Your task to perform on an android device: all mails in gmail Image 0: 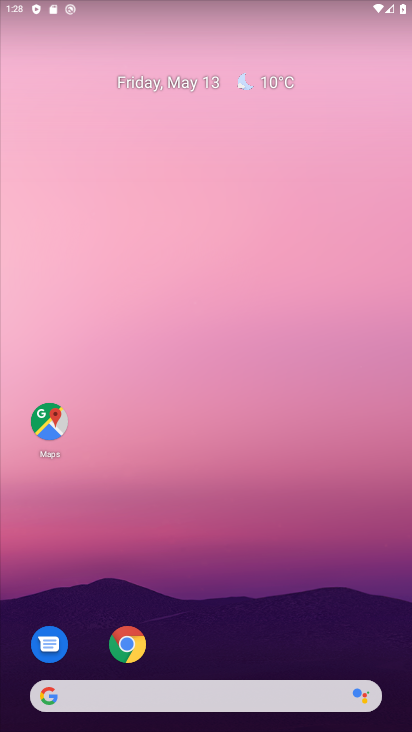
Step 0: drag from (229, 677) to (337, 1)
Your task to perform on an android device: all mails in gmail Image 1: 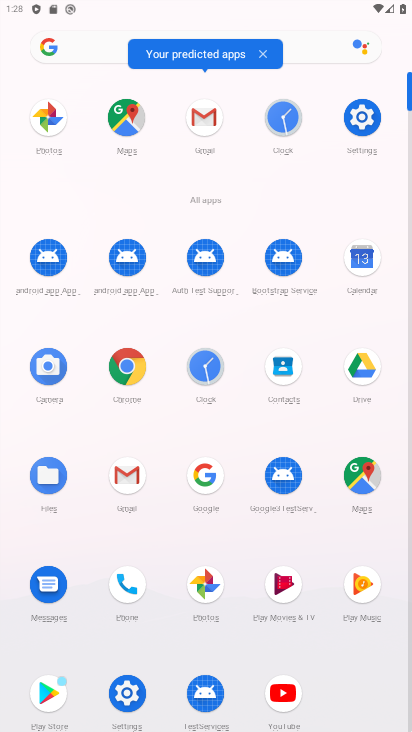
Step 1: click (120, 477)
Your task to perform on an android device: all mails in gmail Image 2: 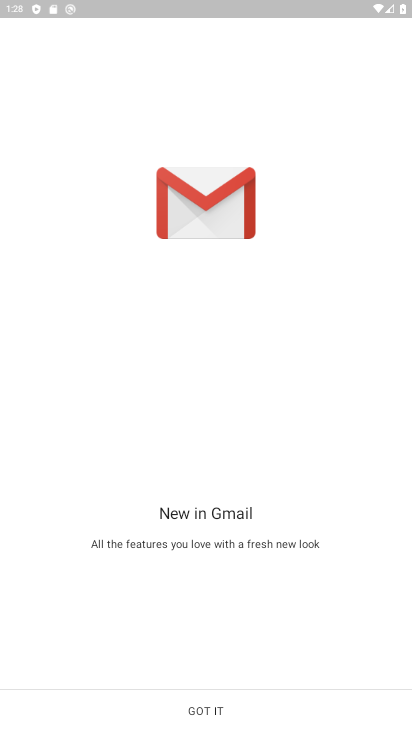
Step 2: click (206, 709)
Your task to perform on an android device: all mails in gmail Image 3: 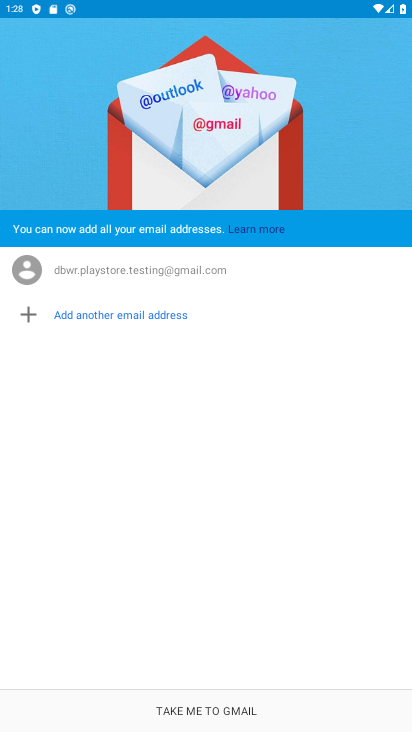
Step 3: click (206, 709)
Your task to perform on an android device: all mails in gmail Image 4: 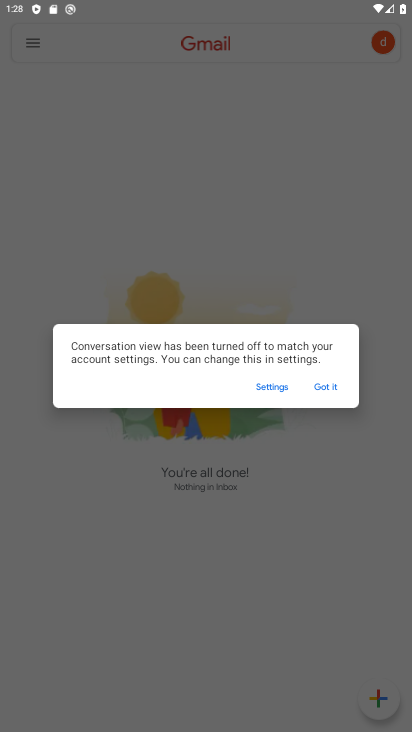
Step 4: click (329, 391)
Your task to perform on an android device: all mails in gmail Image 5: 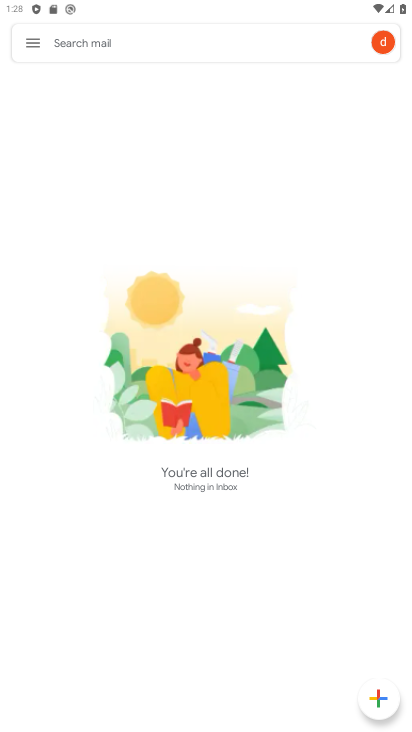
Step 5: click (25, 40)
Your task to perform on an android device: all mails in gmail Image 6: 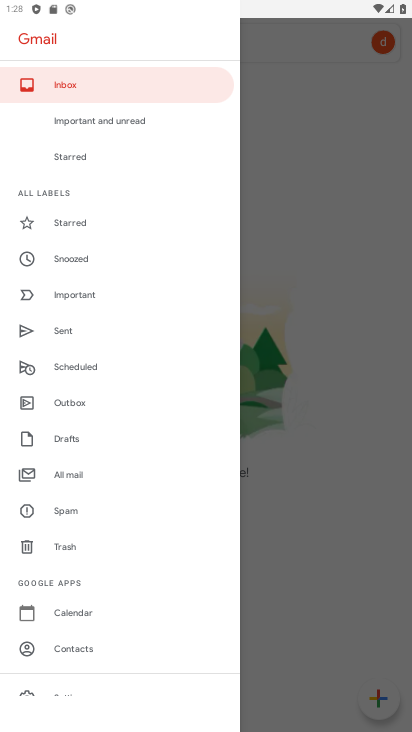
Step 6: click (74, 474)
Your task to perform on an android device: all mails in gmail Image 7: 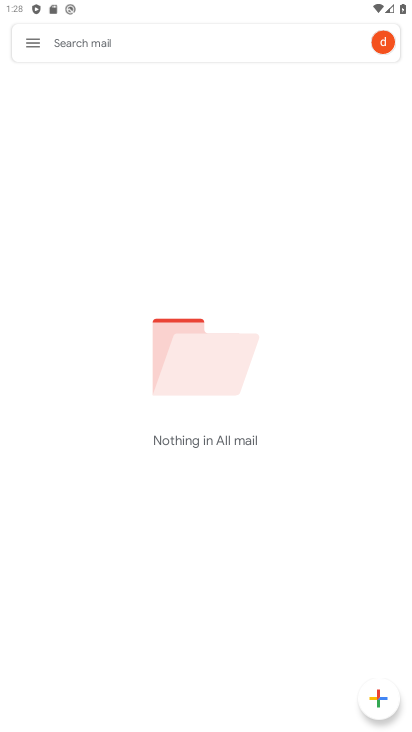
Step 7: task complete